Your task to perform on an android device: Check the weather Image 0: 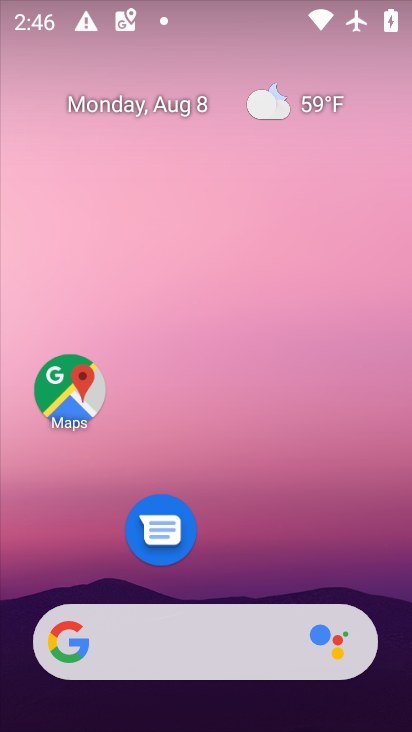
Step 0: drag from (220, 345) to (220, 88)
Your task to perform on an android device: Check the weather Image 1: 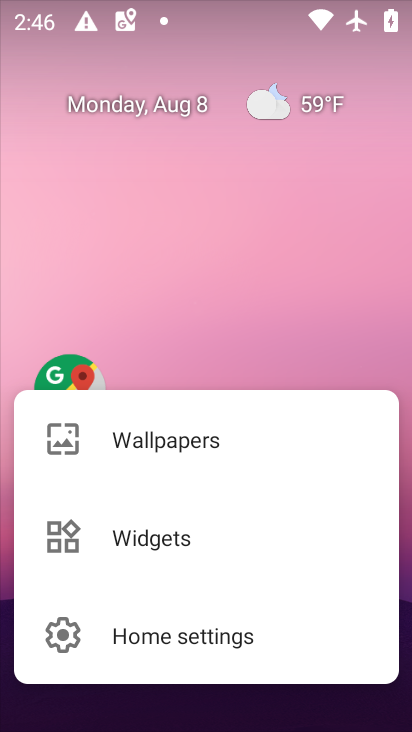
Step 1: click (312, 239)
Your task to perform on an android device: Check the weather Image 2: 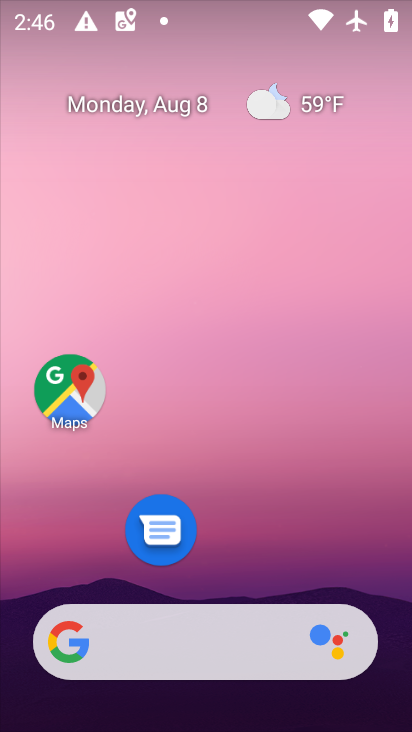
Step 2: click (270, 98)
Your task to perform on an android device: Check the weather Image 3: 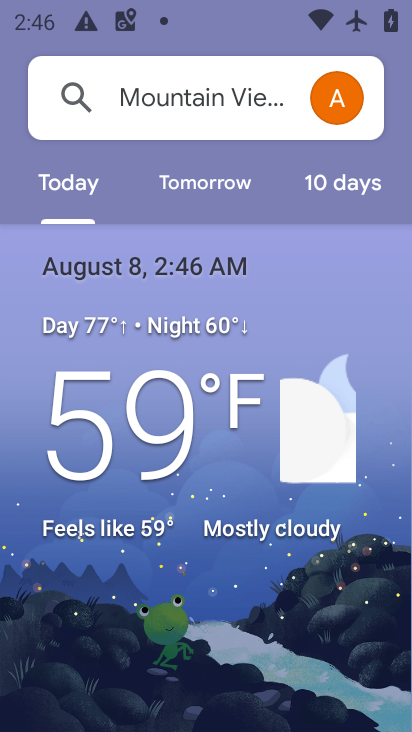
Step 3: task complete